Your task to perform on an android device: Open Google Chrome and click the shortcut for Amazon.com Image 0: 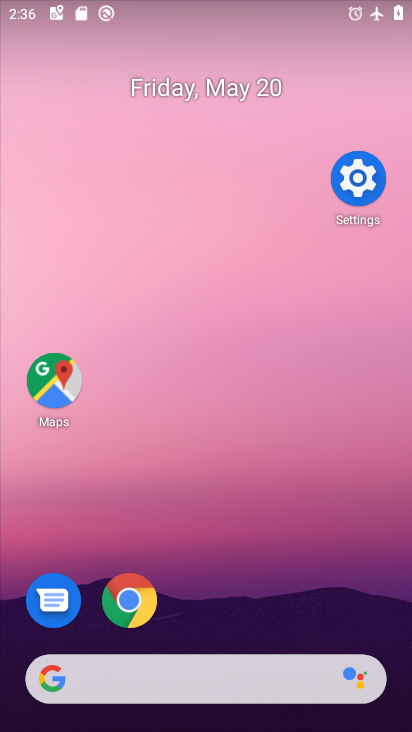
Step 0: click (141, 603)
Your task to perform on an android device: Open Google Chrome and click the shortcut for Amazon.com Image 1: 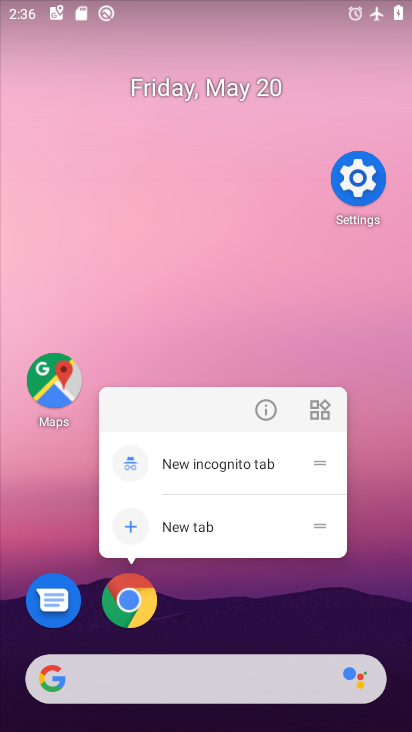
Step 1: click (144, 599)
Your task to perform on an android device: Open Google Chrome and click the shortcut for Amazon.com Image 2: 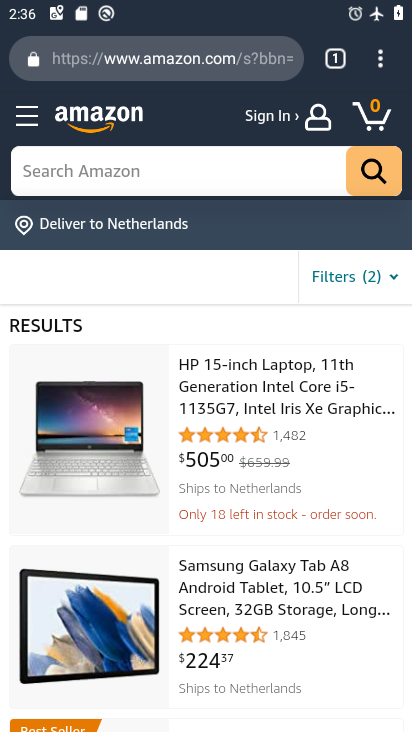
Step 2: click (383, 54)
Your task to perform on an android device: Open Google Chrome and click the shortcut for Amazon.com Image 3: 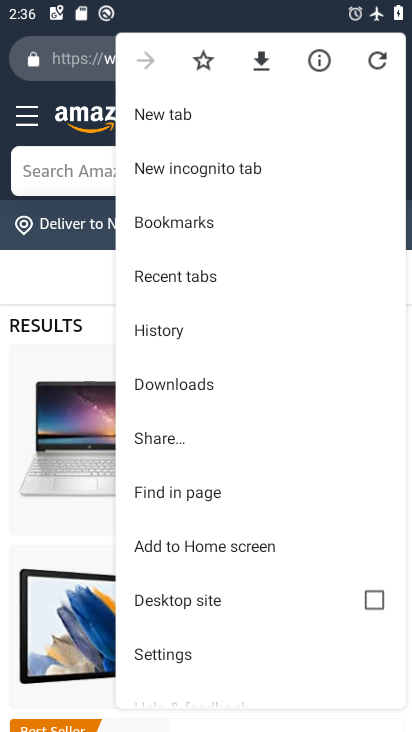
Step 3: click (176, 119)
Your task to perform on an android device: Open Google Chrome and click the shortcut for Amazon.com Image 4: 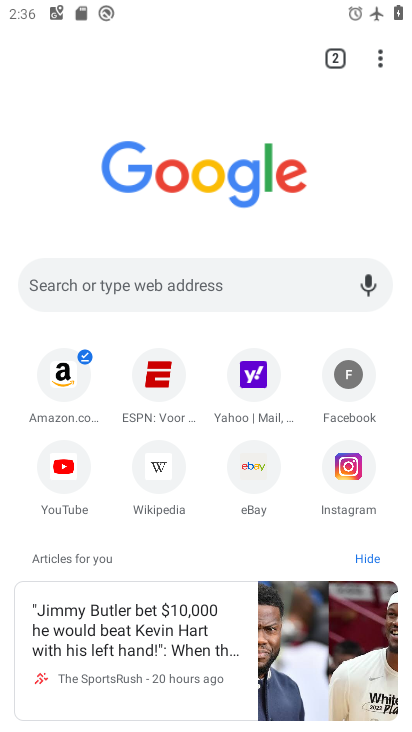
Step 4: click (66, 376)
Your task to perform on an android device: Open Google Chrome and click the shortcut for Amazon.com Image 5: 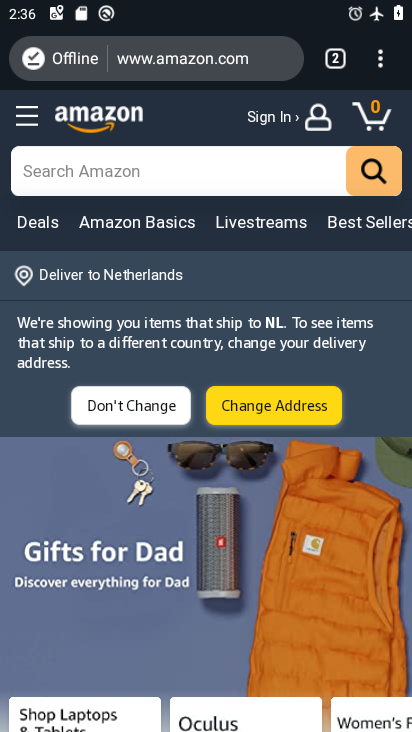
Step 5: task complete